Your task to perform on an android device: Open Chrome and go to settings Image 0: 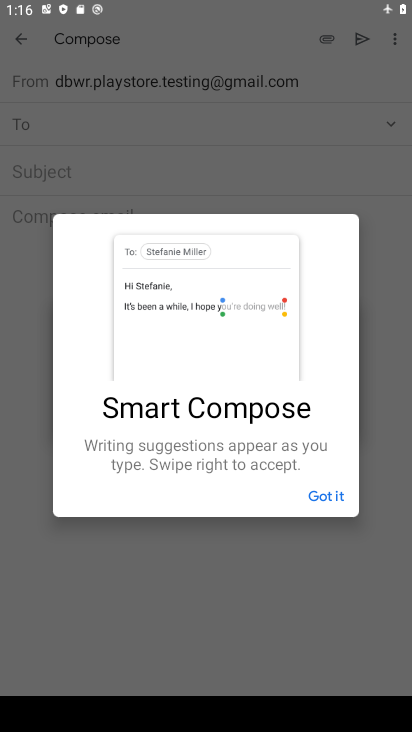
Step 0: press home button
Your task to perform on an android device: Open Chrome and go to settings Image 1: 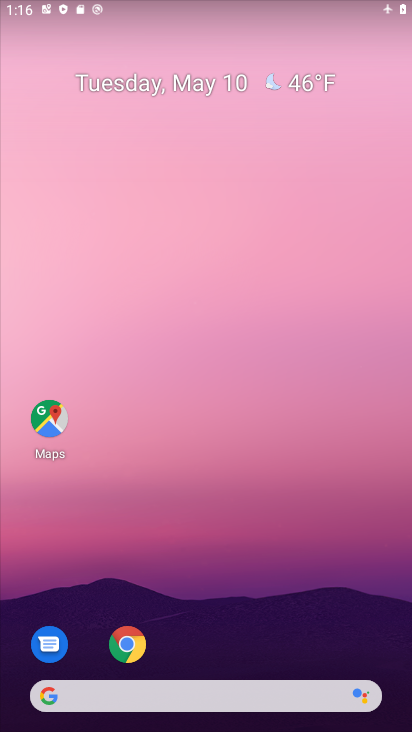
Step 1: drag from (261, 621) to (269, 226)
Your task to perform on an android device: Open Chrome and go to settings Image 2: 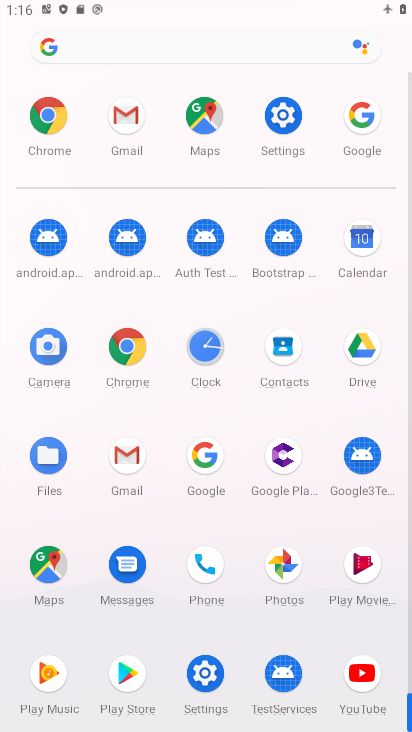
Step 2: click (281, 137)
Your task to perform on an android device: Open Chrome and go to settings Image 3: 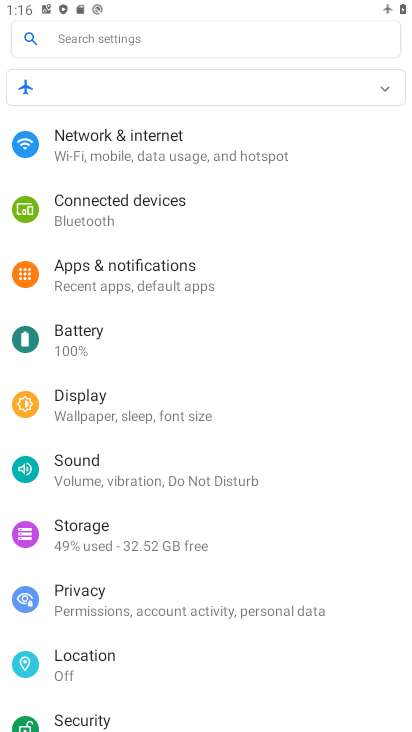
Step 3: press home button
Your task to perform on an android device: Open Chrome and go to settings Image 4: 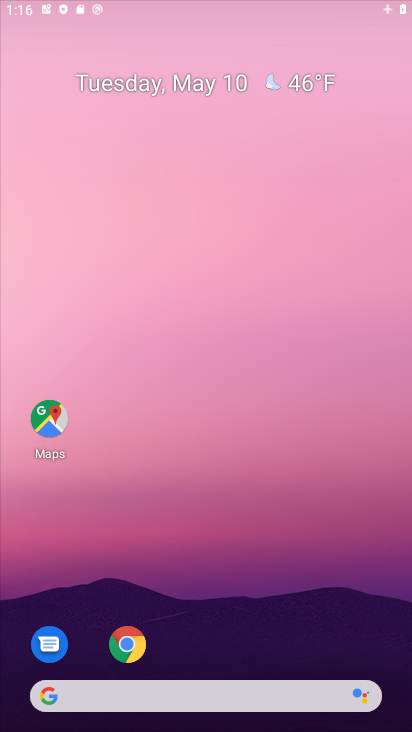
Step 4: drag from (192, 619) to (212, 256)
Your task to perform on an android device: Open Chrome and go to settings Image 5: 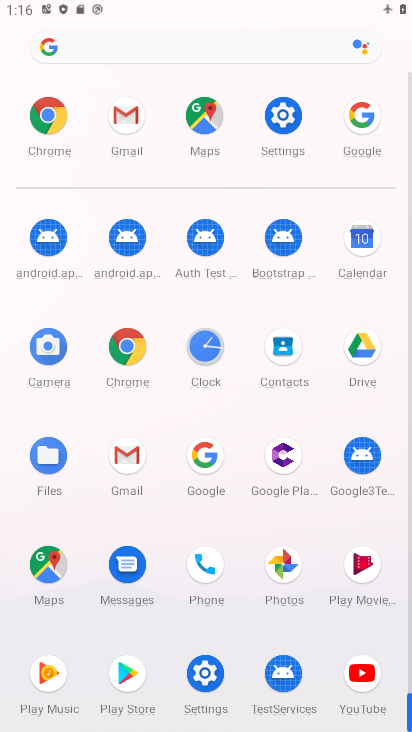
Step 5: click (135, 363)
Your task to perform on an android device: Open Chrome and go to settings Image 6: 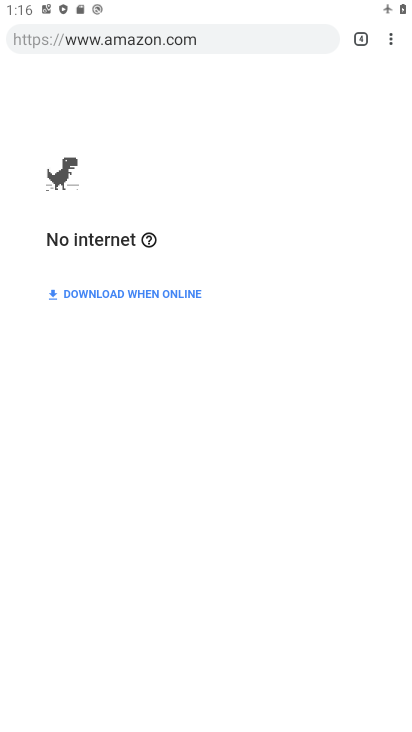
Step 6: click (390, 45)
Your task to perform on an android device: Open Chrome and go to settings Image 7: 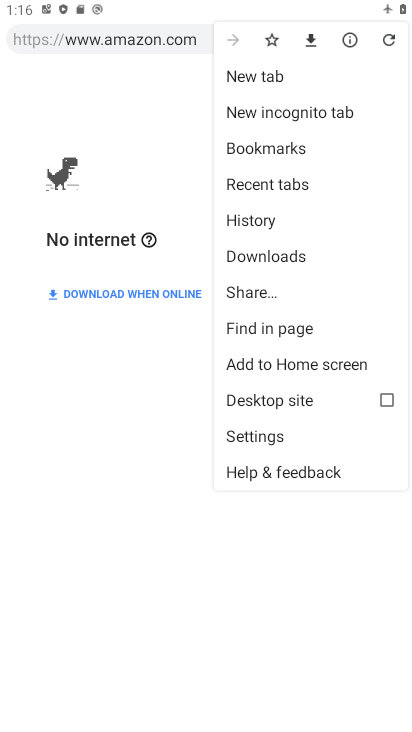
Step 7: click (268, 438)
Your task to perform on an android device: Open Chrome and go to settings Image 8: 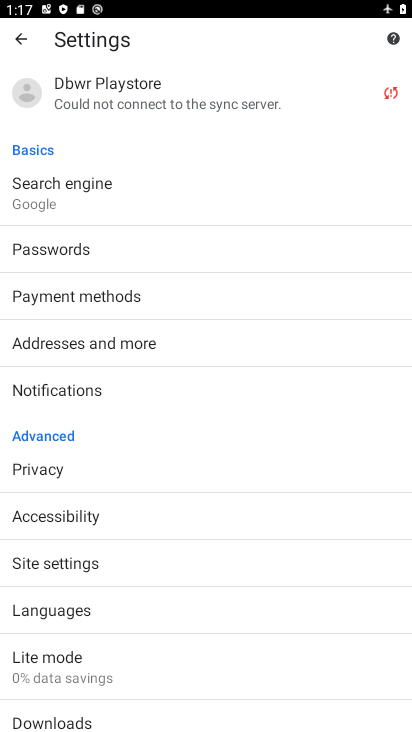
Step 8: task complete